Your task to perform on an android device: change the clock display to digital Image 0: 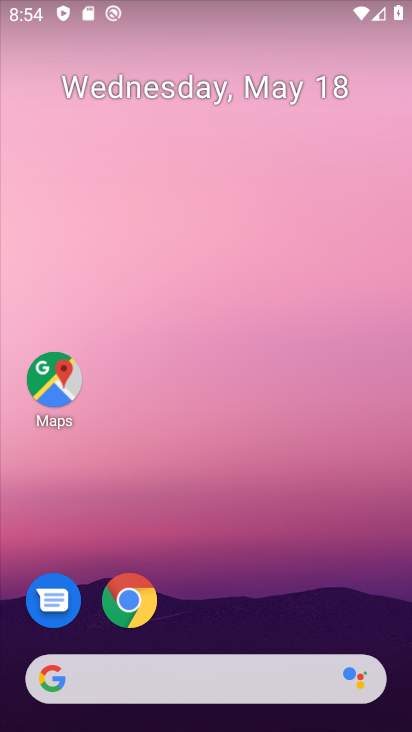
Step 0: drag from (82, 430) to (276, 77)
Your task to perform on an android device: change the clock display to digital Image 1: 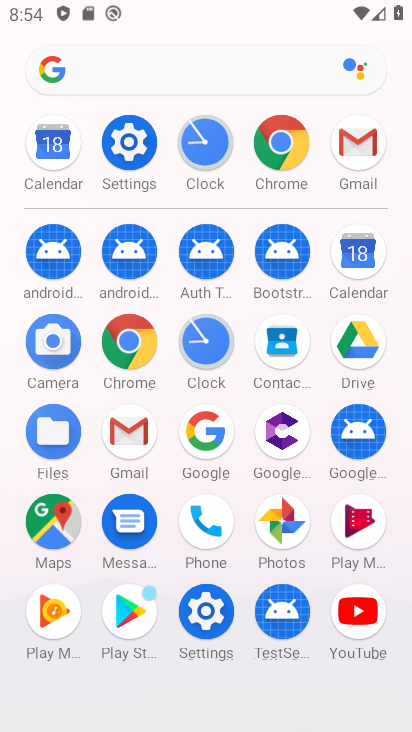
Step 1: click (207, 136)
Your task to perform on an android device: change the clock display to digital Image 2: 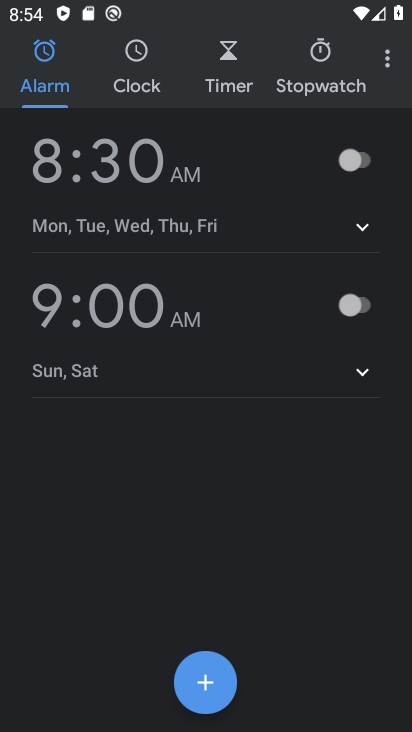
Step 2: click (380, 56)
Your task to perform on an android device: change the clock display to digital Image 3: 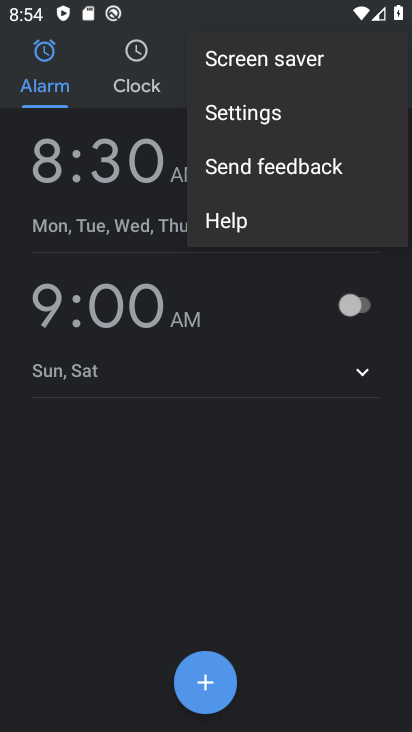
Step 3: click (235, 116)
Your task to perform on an android device: change the clock display to digital Image 4: 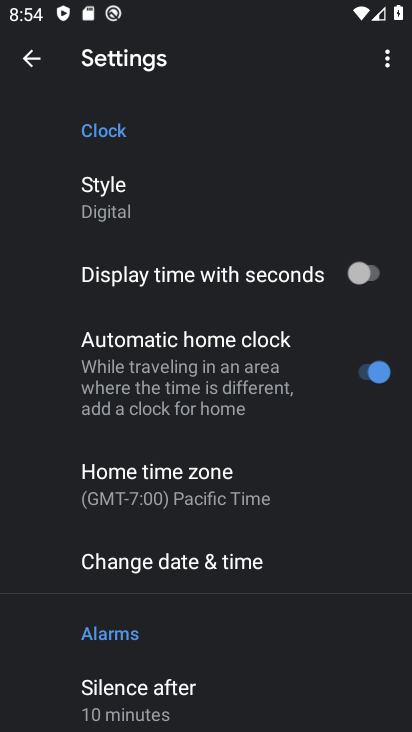
Step 4: task complete